Your task to perform on an android device: Go to internet settings Image 0: 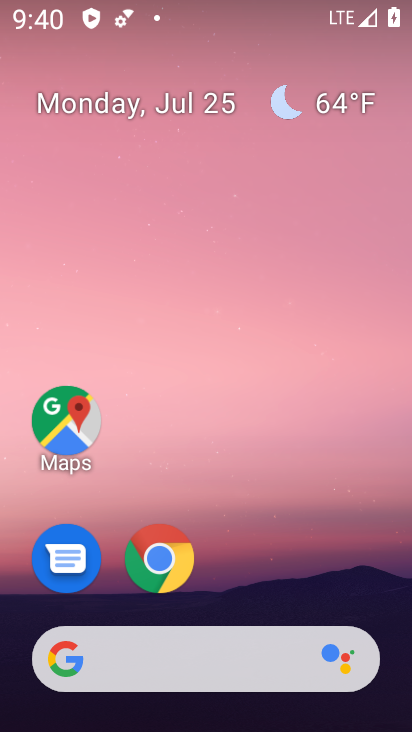
Step 0: drag from (360, 571) to (369, 134)
Your task to perform on an android device: Go to internet settings Image 1: 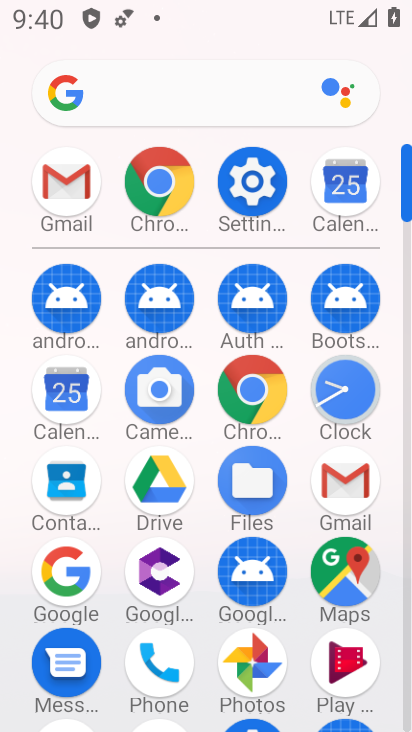
Step 1: click (262, 186)
Your task to perform on an android device: Go to internet settings Image 2: 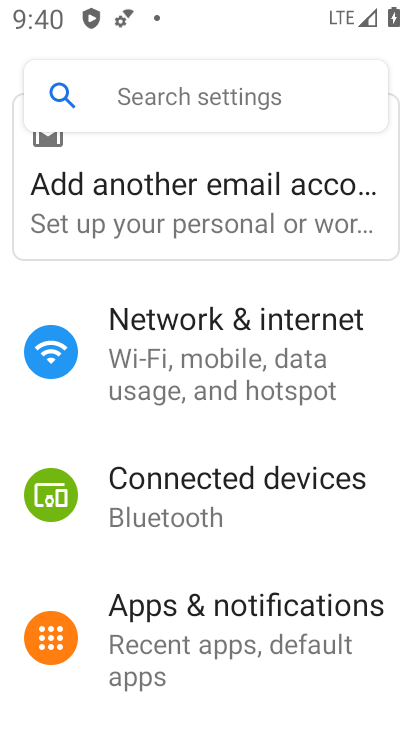
Step 2: drag from (373, 388) to (374, 306)
Your task to perform on an android device: Go to internet settings Image 3: 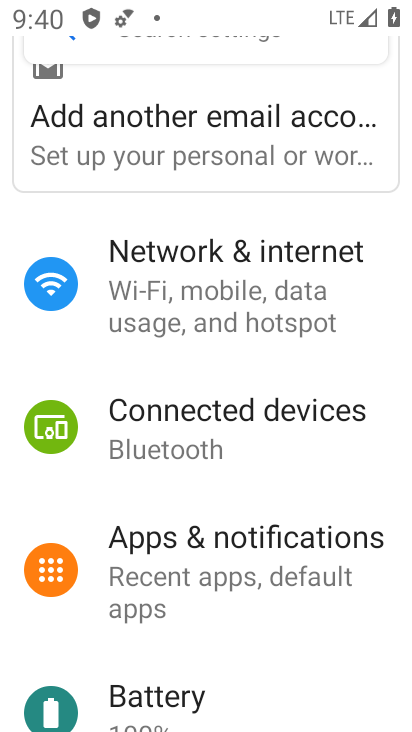
Step 3: drag from (374, 577) to (385, 458)
Your task to perform on an android device: Go to internet settings Image 4: 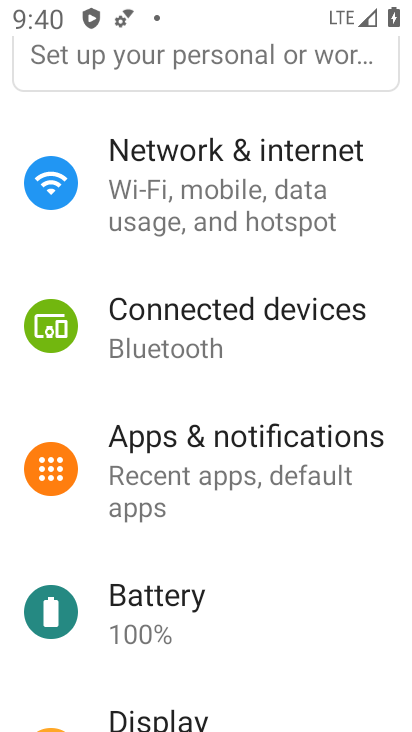
Step 4: drag from (378, 585) to (375, 444)
Your task to perform on an android device: Go to internet settings Image 5: 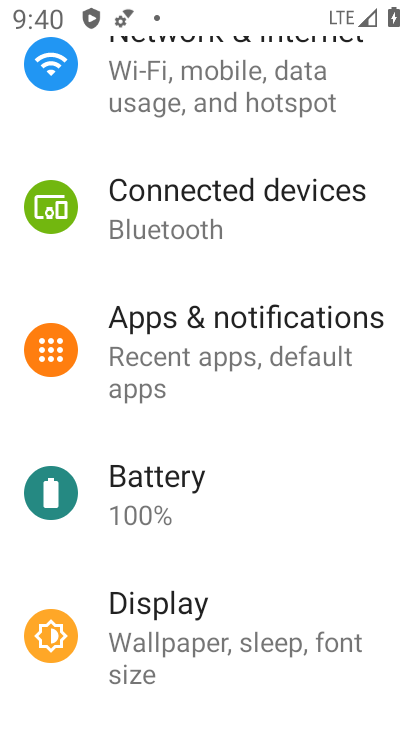
Step 5: drag from (360, 517) to (372, 397)
Your task to perform on an android device: Go to internet settings Image 6: 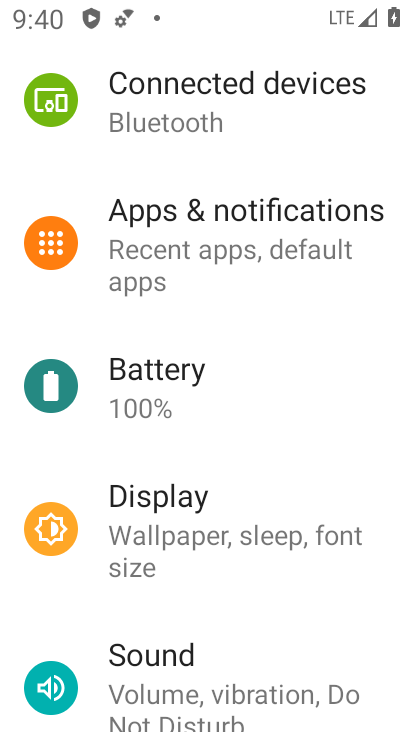
Step 6: drag from (366, 590) to (354, 449)
Your task to perform on an android device: Go to internet settings Image 7: 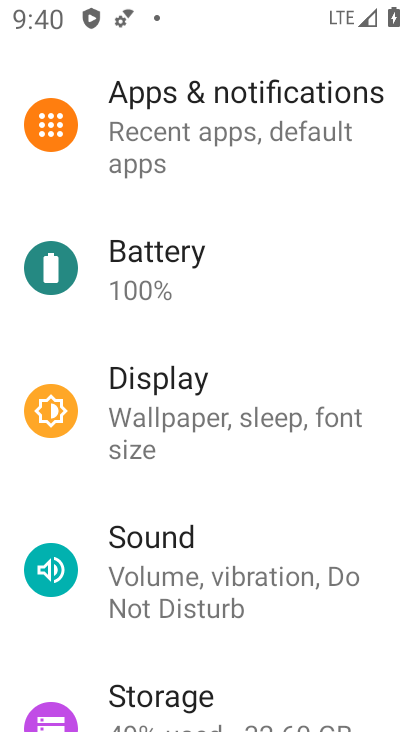
Step 7: drag from (329, 484) to (323, 408)
Your task to perform on an android device: Go to internet settings Image 8: 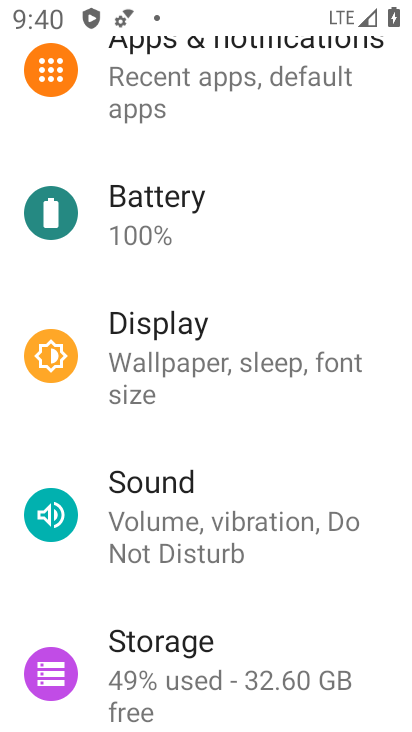
Step 8: drag from (320, 564) to (321, 343)
Your task to perform on an android device: Go to internet settings Image 9: 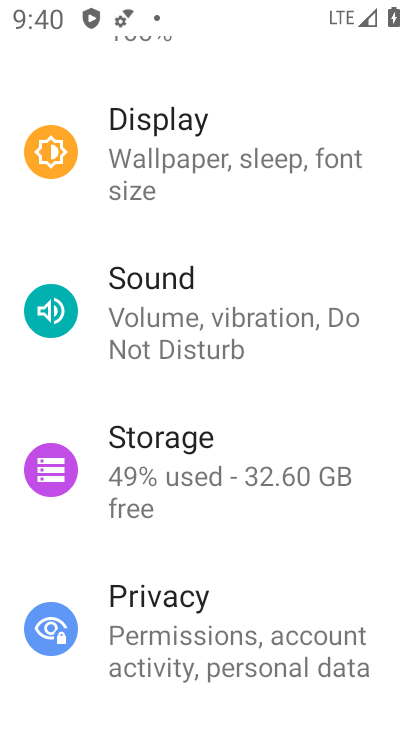
Step 9: drag from (356, 535) to (352, 351)
Your task to perform on an android device: Go to internet settings Image 10: 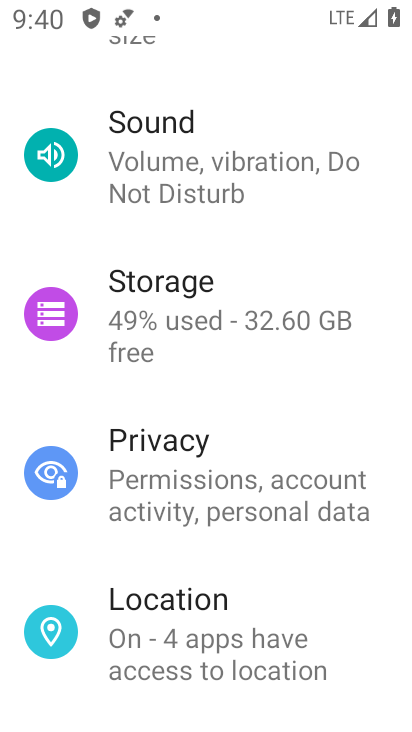
Step 10: drag from (363, 568) to (366, 443)
Your task to perform on an android device: Go to internet settings Image 11: 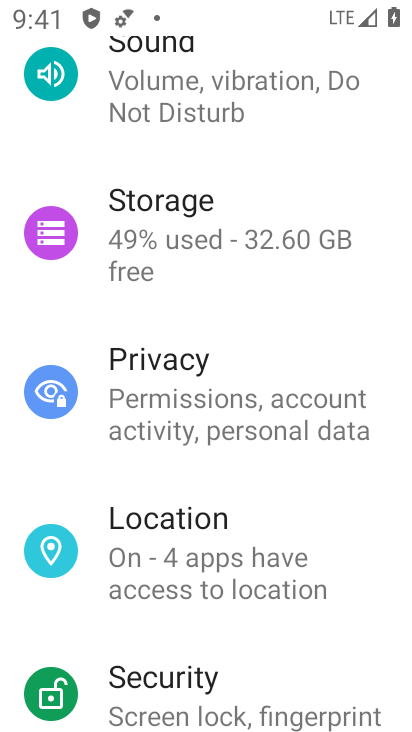
Step 11: drag from (350, 296) to (318, 451)
Your task to perform on an android device: Go to internet settings Image 12: 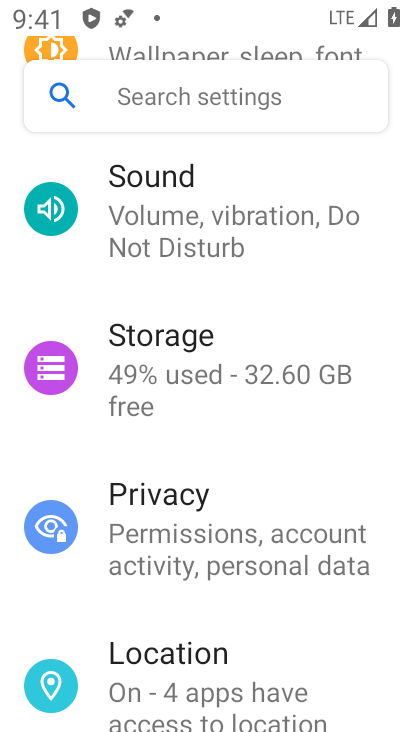
Step 12: drag from (318, 259) to (323, 445)
Your task to perform on an android device: Go to internet settings Image 13: 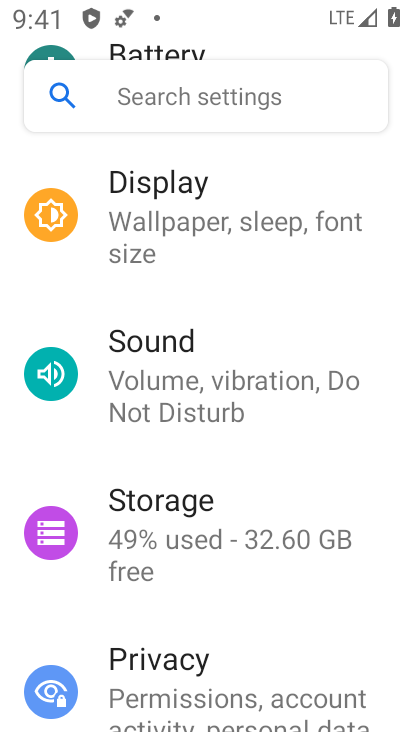
Step 13: drag from (375, 169) to (338, 544)
Your task to perform on an android device: Go to internet settings Image 14: 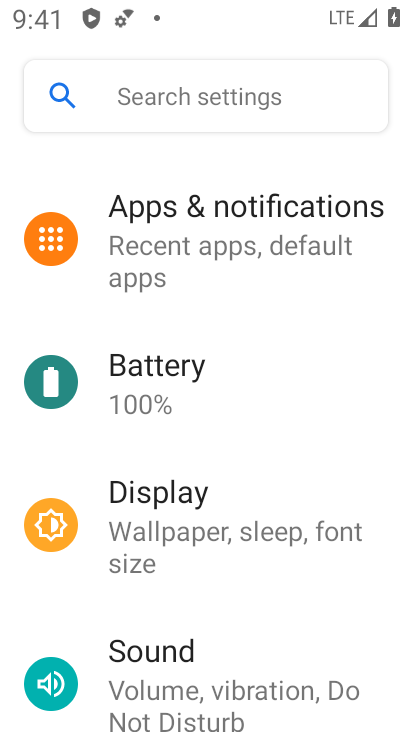
Step 14: drag from (355, 236) to (350, 487)
Your task to perform on an android device: Go to internet settings Image 15: 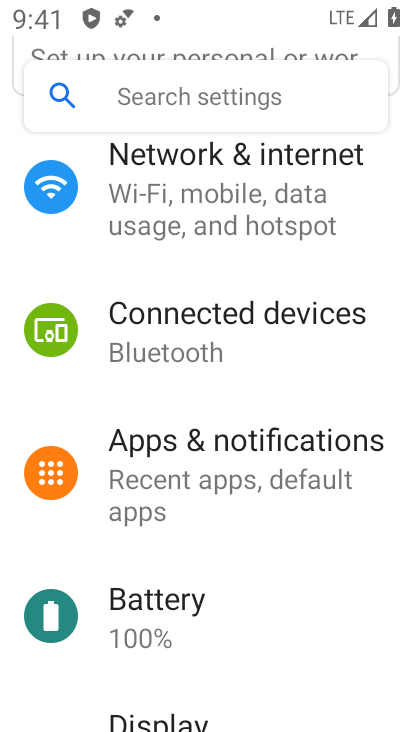
Step 15: click (318, 177)
Your task to perform on an android device: Go to internet settings Image 16: 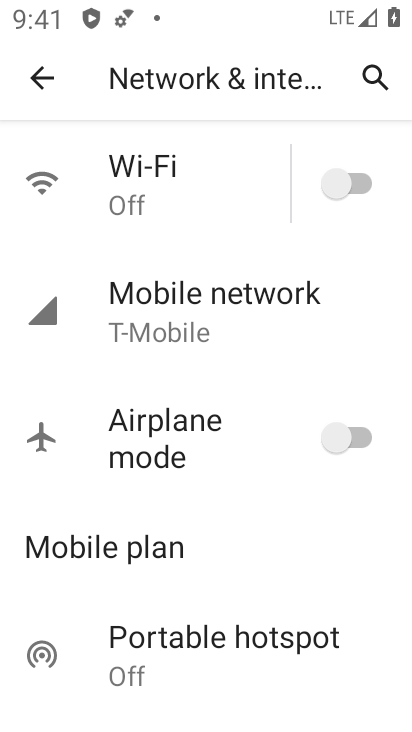
Step 16: task complete